Your task to perform on an android device: install app "File Manager" Image 0: 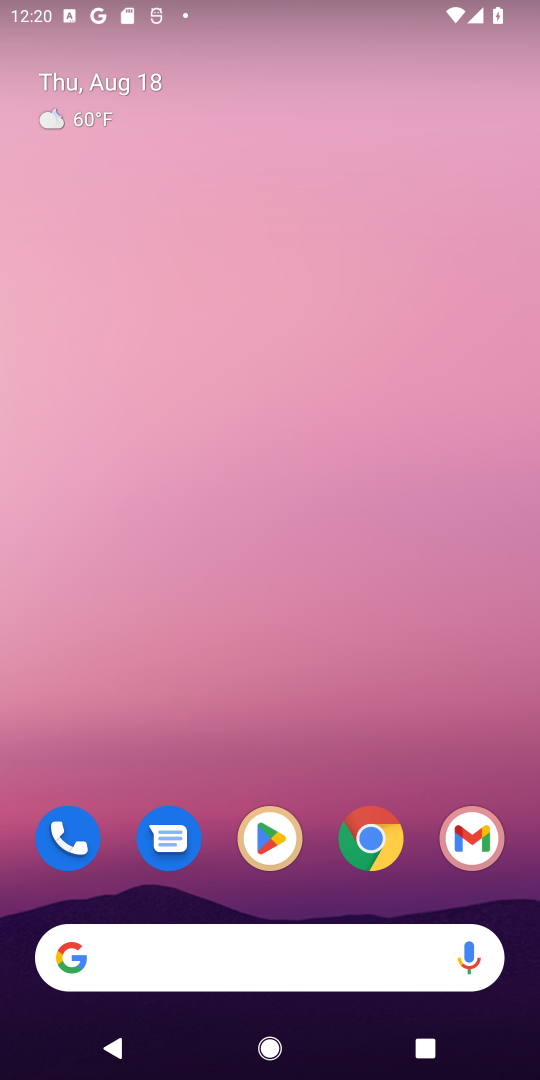
Step 0: click (289, 840)
Your task to perform on an android device: install app "File Manager" Image 1: 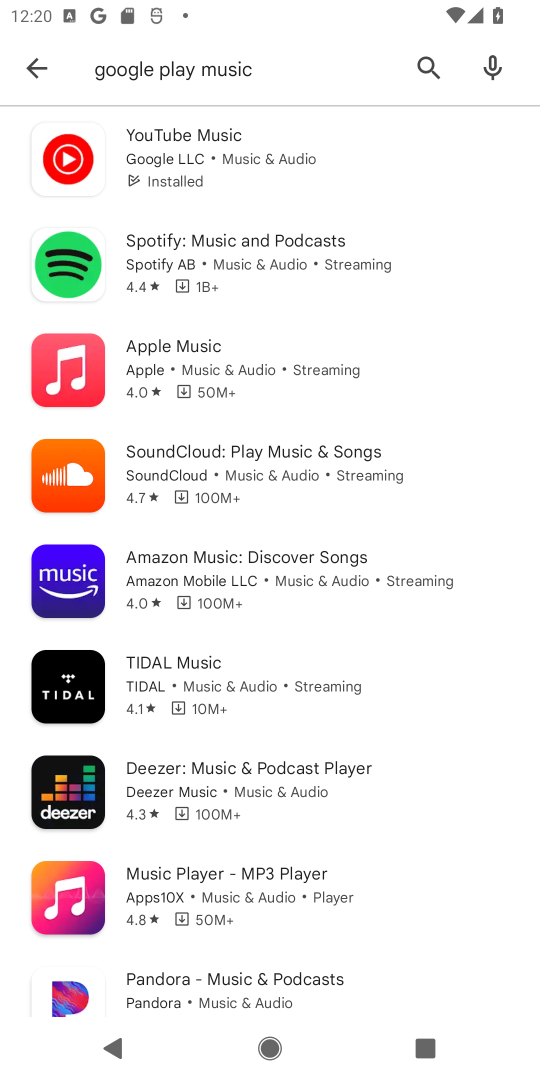
Step 1: click (433, 54)
Your task to perform on an android device: install app "File Manager" Image 2: 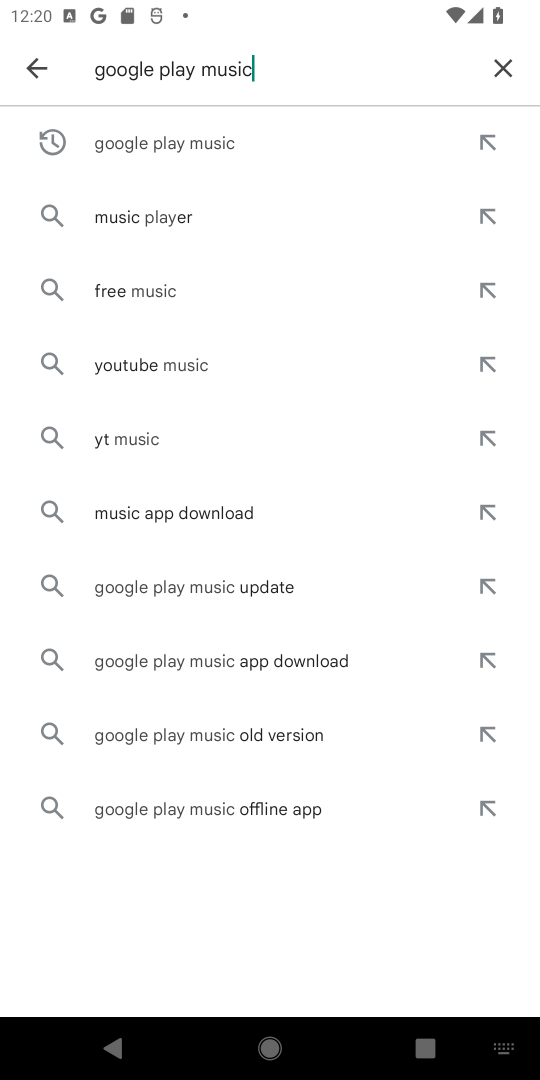
Step 2: click (516, 68)
Your task to perform on an android device: install app "File Manager" Image 3: 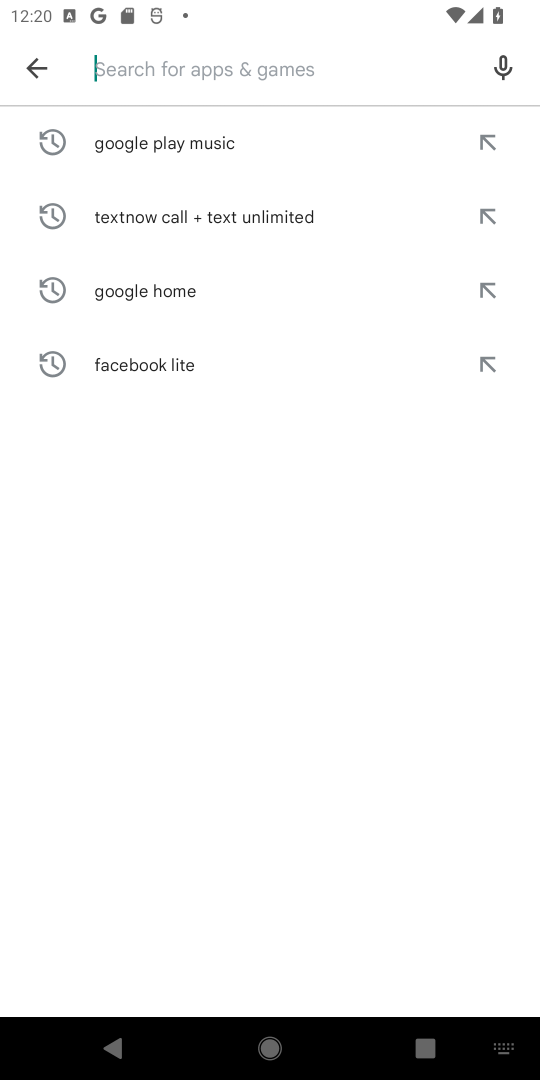
Step 3: type "File Manager"
Your task to perform on an android device: install app "File Manager" Image 4: 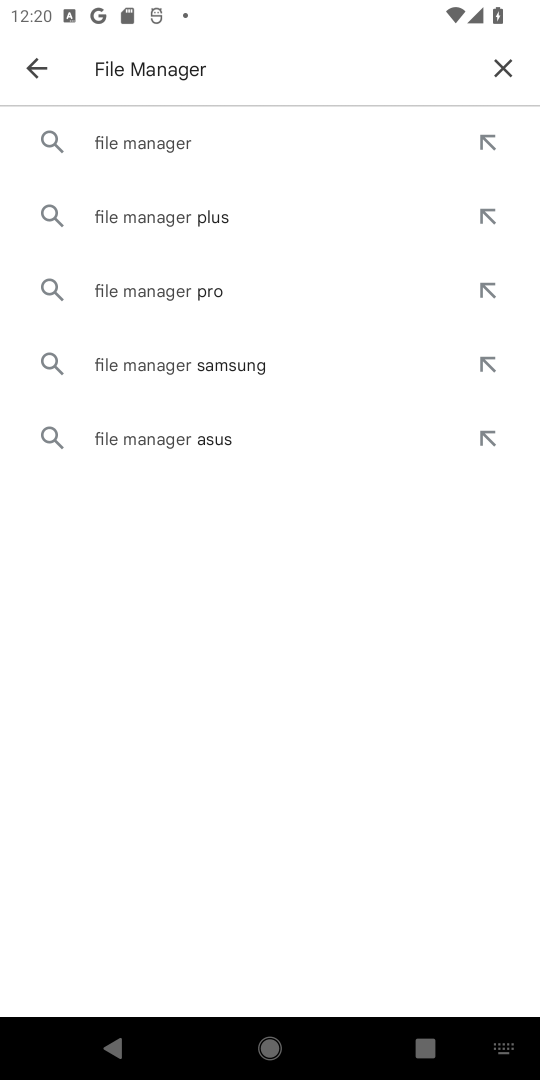
Step 4: type ""
Your task to perform on an android device: install app "File Manager" Image 5: 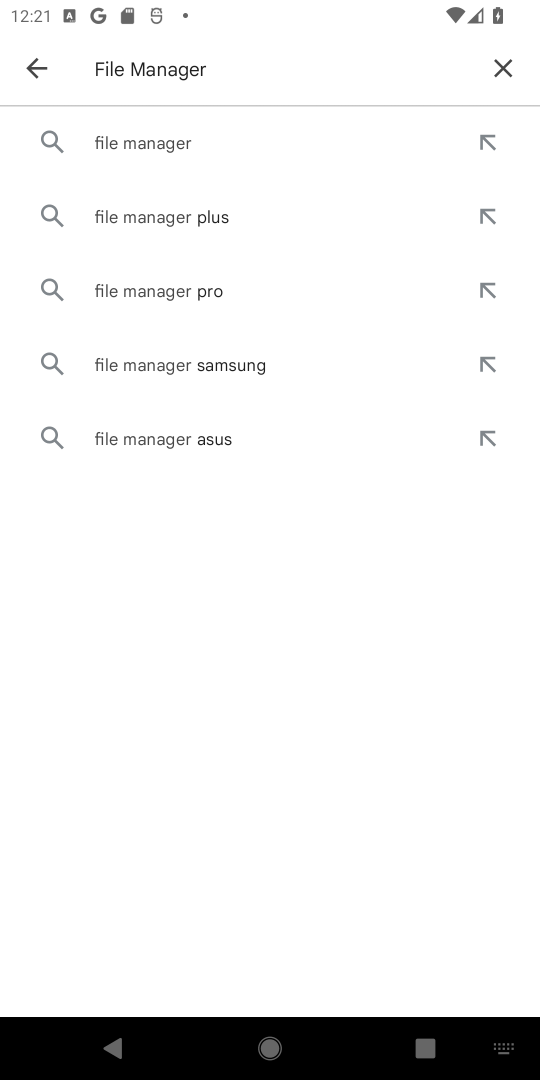
Step 5: click (144, 146)
Your task to perform on an android device: install app "File Manager" Image 6: 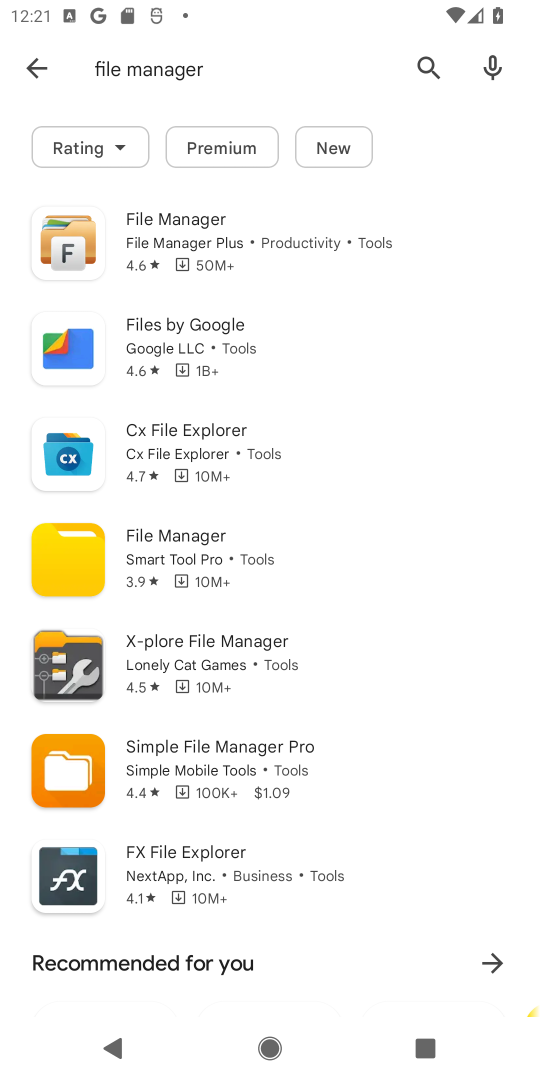
Step 6: click (279, 245)
Your task to perform on an android device: install app "File Manager" Image 7: 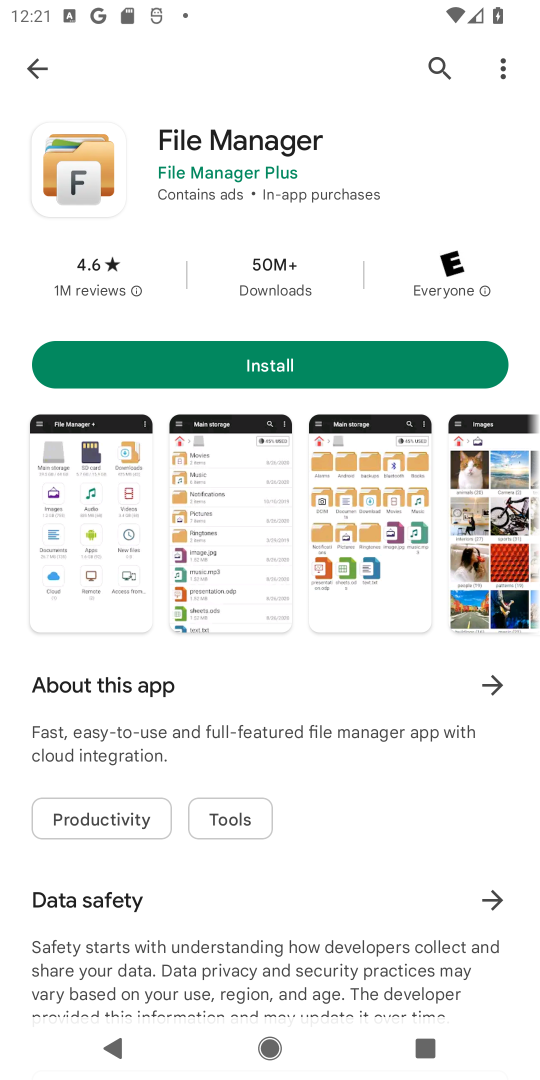
Step 7: click (304, 362)
Your task to perform on an android device: install app "File Manager" Image 8: 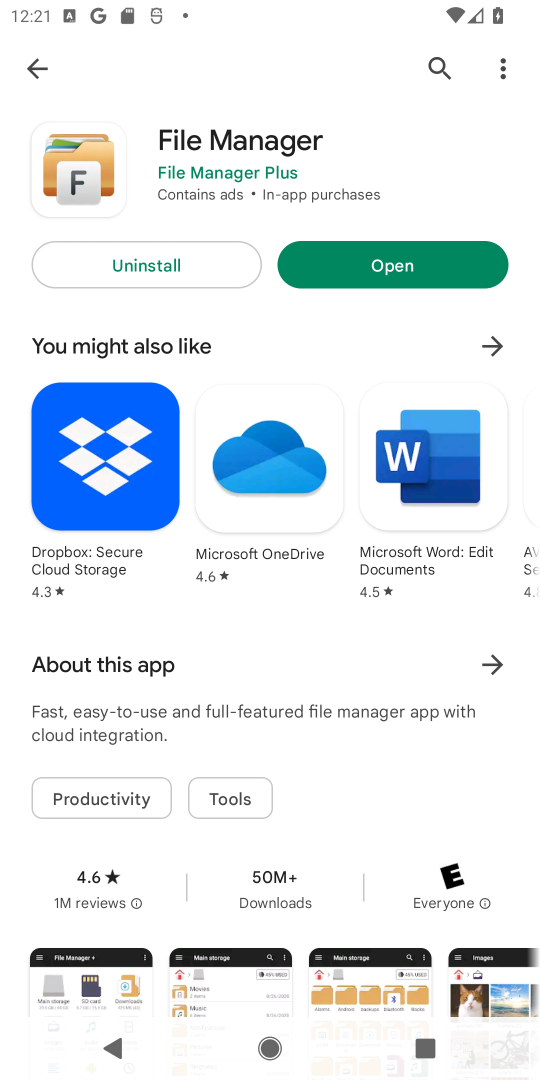
Step 8: task complete